Your task to perform on an android device: delete the emails in spam in the gmail app Image 0: 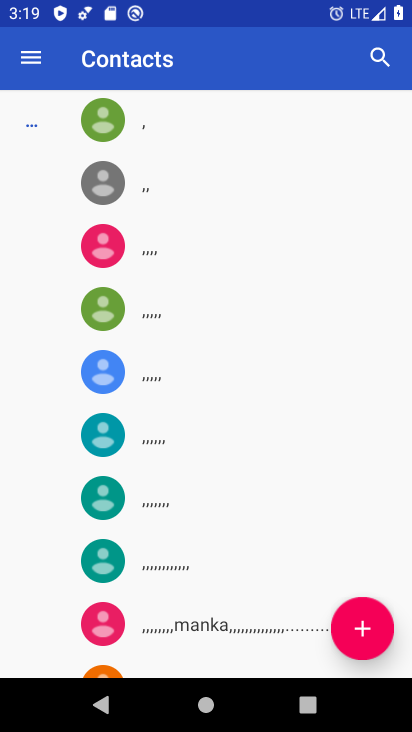
Step 0: press home button
Your task to perform on an android device: delete the emails in spam in the gmail app Image 1: 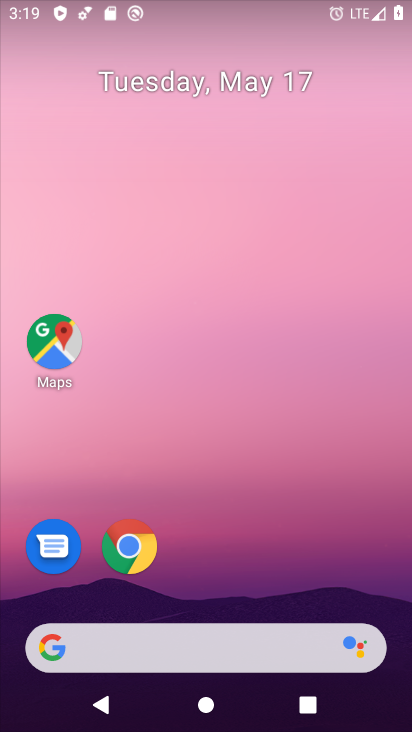
Step 1: drag from (336, 588) to (341, 39)
Your task to perform on an android device: delete the emails in spam in the gmail app Image 2: 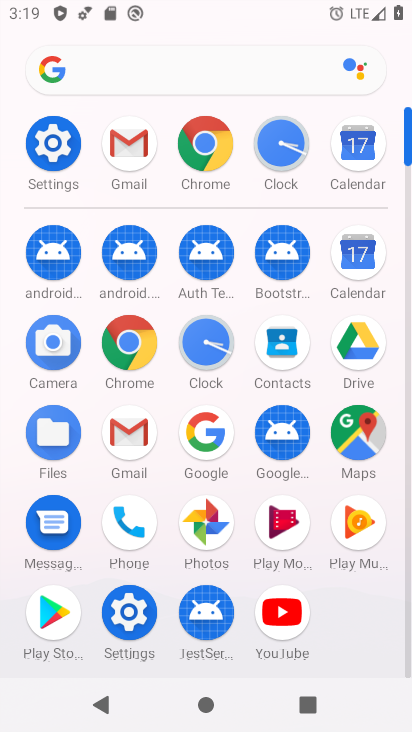
Step 2: click (139, 424)
Your task to perform on an android device: delete the emails in spam in the gmail app Image 3: 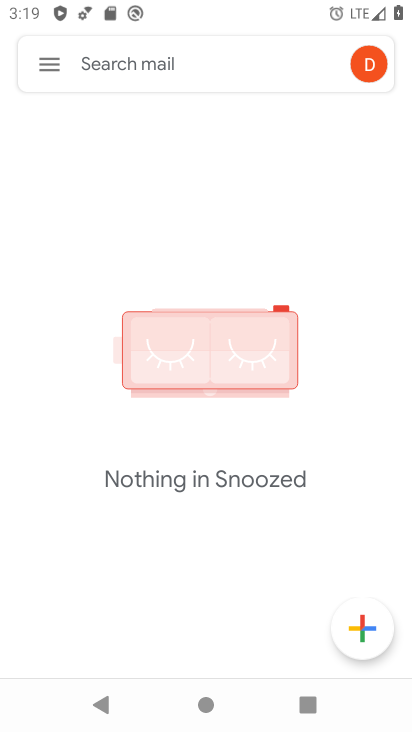
Step 3: task complete